Your task to perform on an android device: turn on showing notifications on the lock screen Image 0: 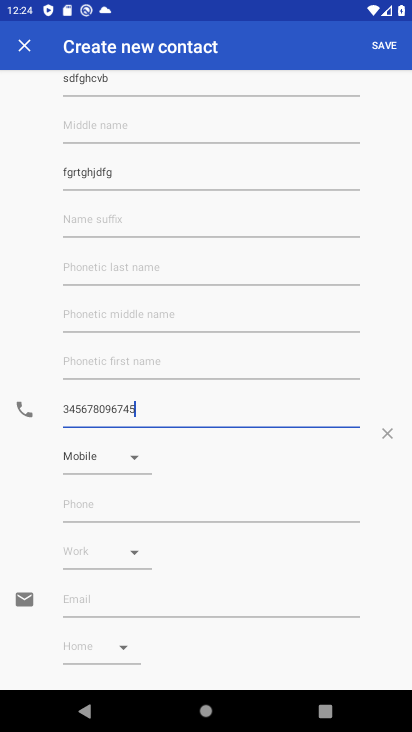
Step 0: press home button
Your task to perform on an android device: turn on showing notifications on the lock screen Image 1: 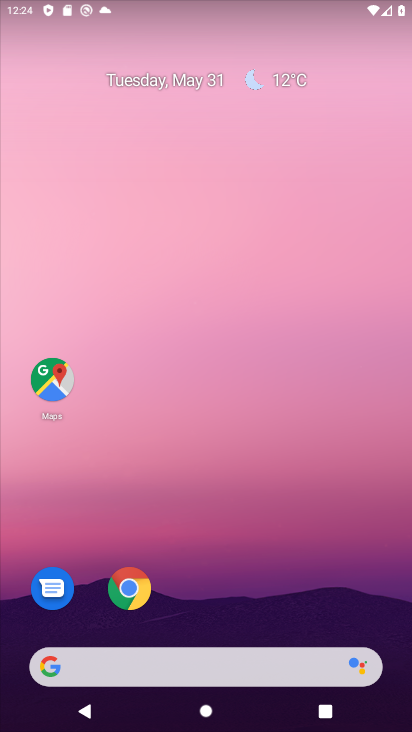
Step 1: drag from (393, 714) to (384, 204)
Your task to perform on an android device: turn on showing notifications on the lock screen Image 2: 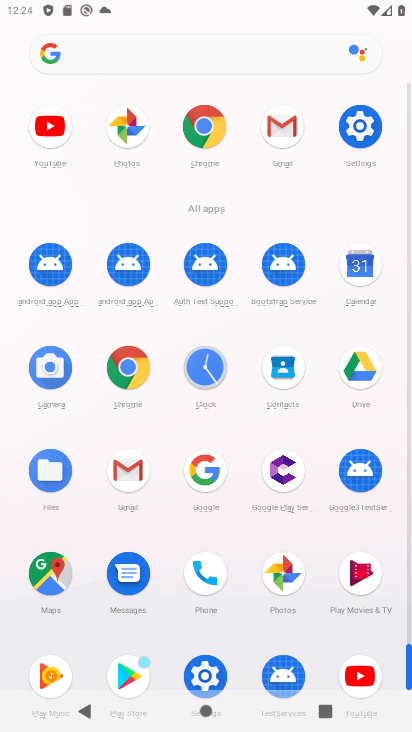
Step 2: click (363, 140)
Your task to perform on an android device: turn on showing notifications on the lock screen Image 3: 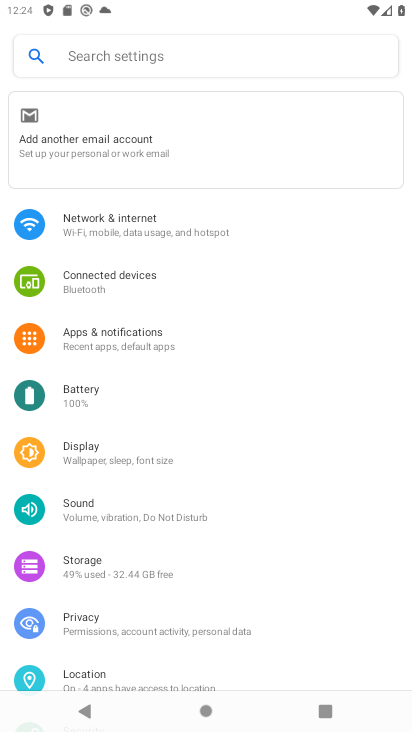
Step 3: click (132, 342)
Your task to perform on an android device: turn on showing notifications on the lock screen Image 4: 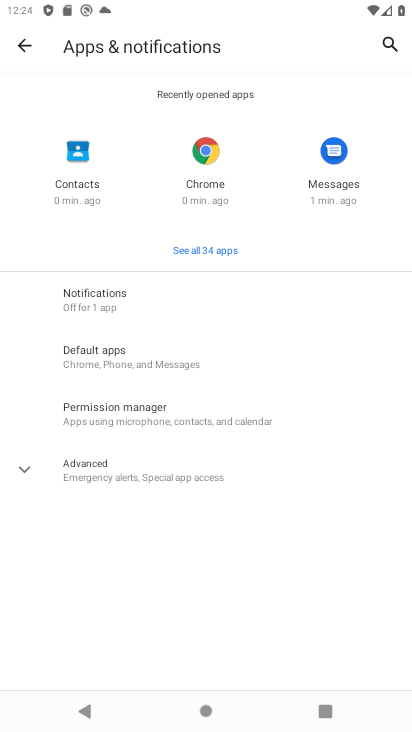
Step 4: click (97, 297)
Your task to perform on an android device: turn on showing notifications on the lock screen Image 5: 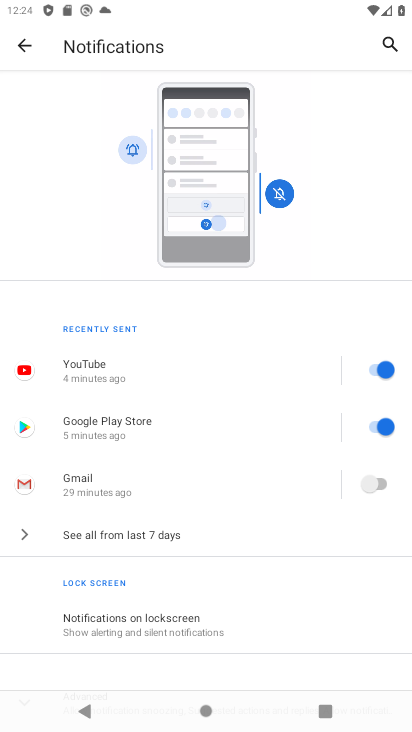
Step 5: click (121, 623)
Your task to perform on an android device: turn on showing notifications on the lock screen Image 6: 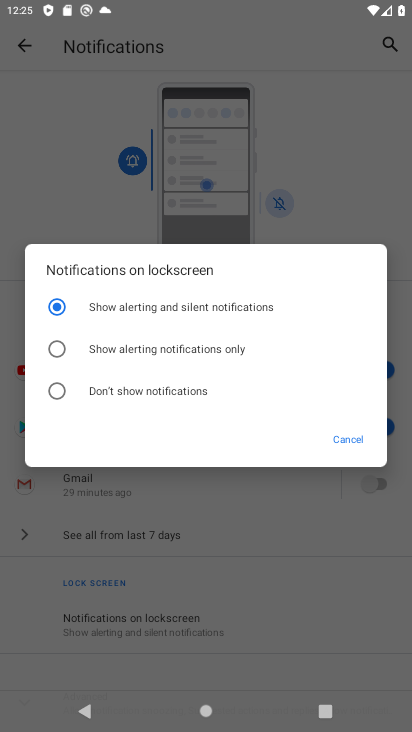
Step 6: click (332, 451)
Your task to perform on an android device: turn on showing notifications on the lock screen Image 7: 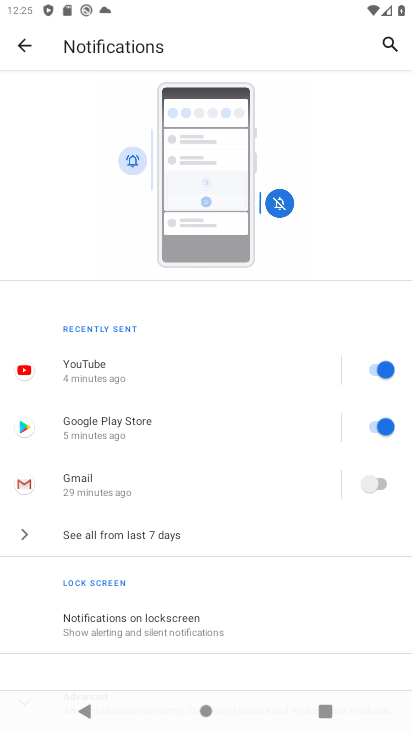
Step 7: click (161, 613)
Your task to perform on an android device: turn on showing notifications on the lock screen Image 8: 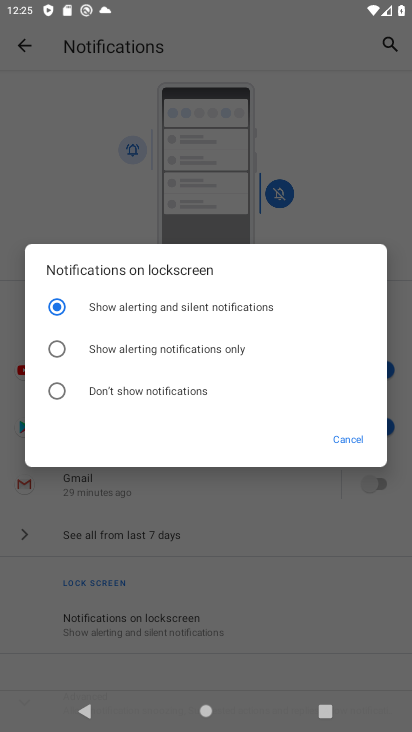
Step 8: task complete